Your task to perform on an android device: turn off data saver in the chrome app Image 0: 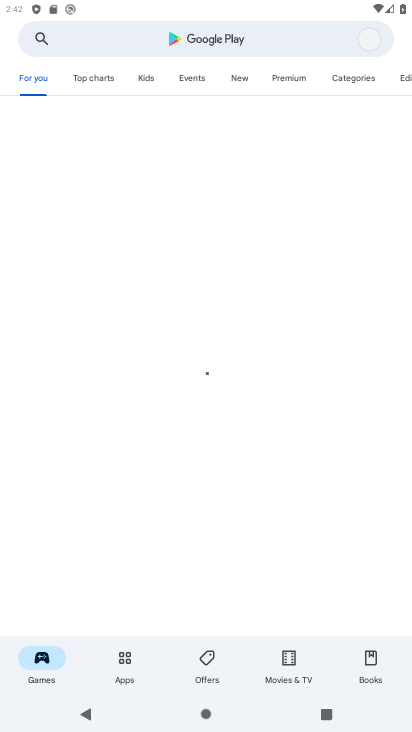
Step 0: press home button
Your task to perform on an android device: turn off data saver in the chrome app Image 1: 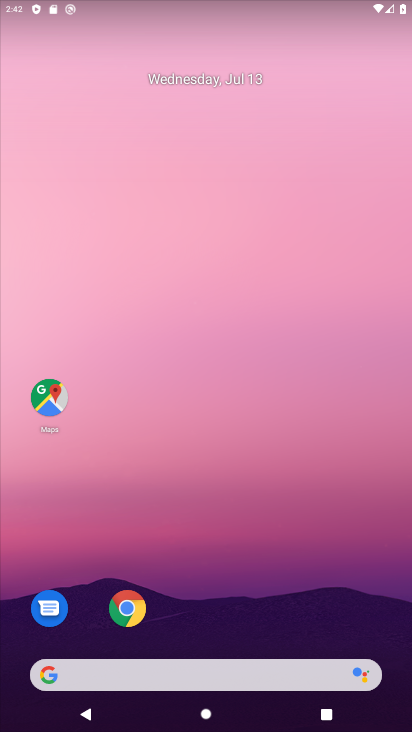
Step 1: drag from (208, 548) to (280, 128)
Your task to perform on an android device: turn off data saver in the chrome app Image 2: 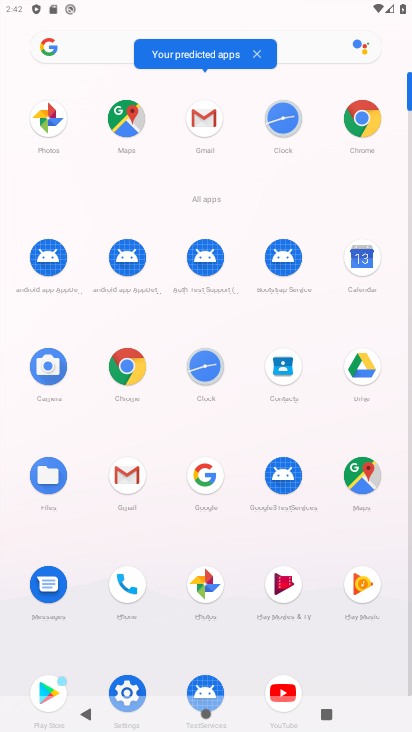
Step 2: click (130, 370)
Your task to perform on an android device: turn off data saver in the chrome app Image 3: 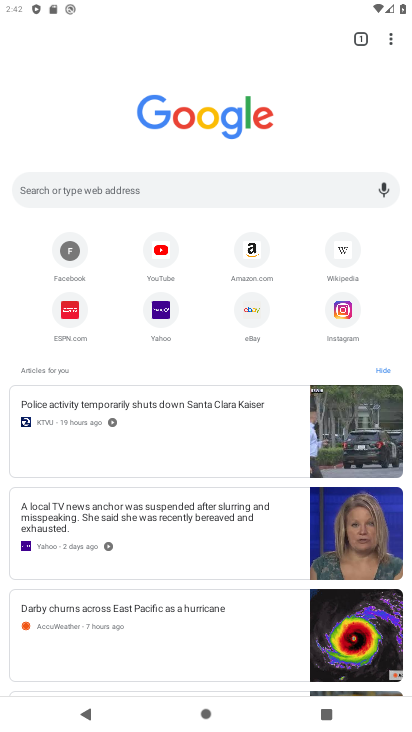
Step 3: drag from (388, 40) to (314, 320)
Your task to perform on an android device: turn off data saver in the chrome app Image 4: 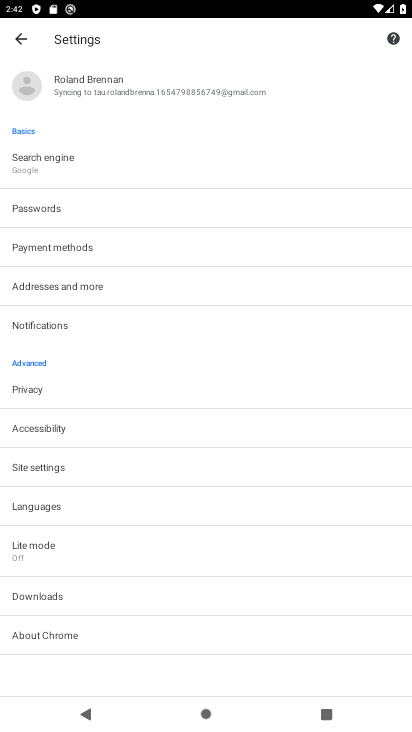
Step 4: click (106, 549)
Your task to perform on an android device: turn off data saver in the chrome app Image 5: 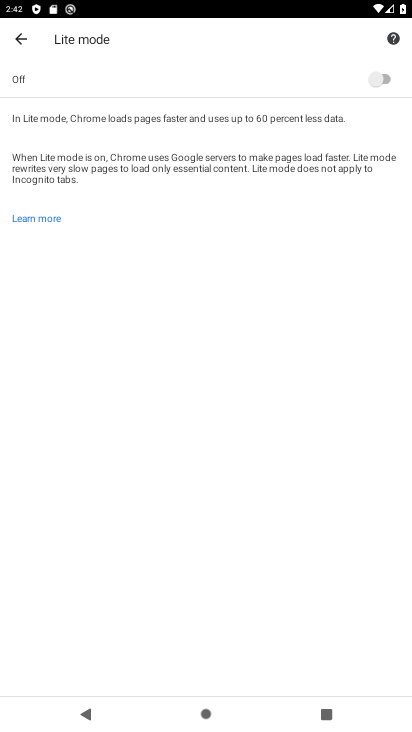
Step 5: task complete